Your task to perform on an android device: Check the weather Image 0: 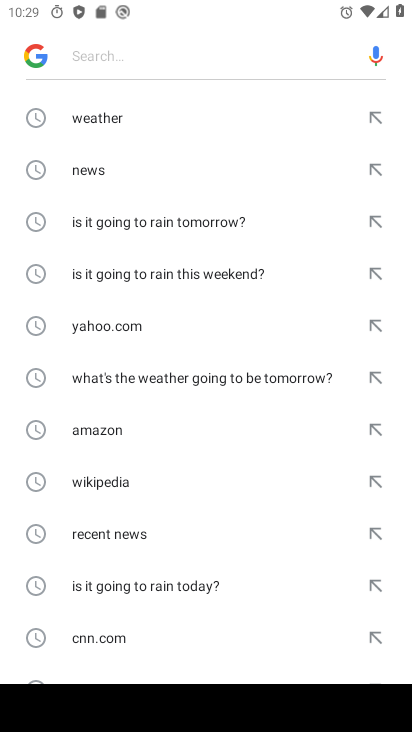
Step 0: click (150, 118)
Your task to perform on an android device: Check the weather Image 1: 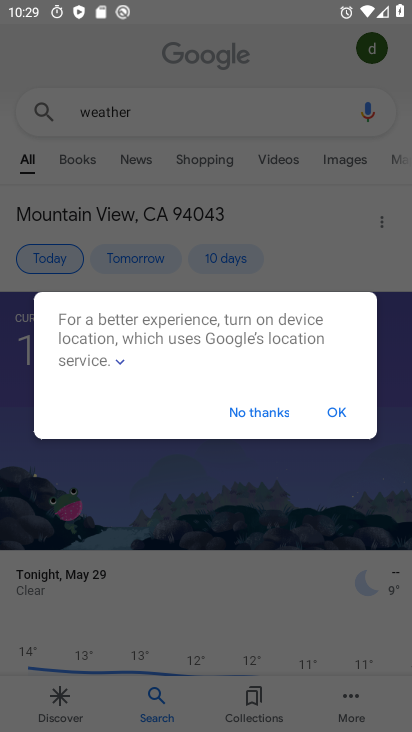
Step 1: click (248, 410)
Your task to perform on an android device: Check the weather Image 2: 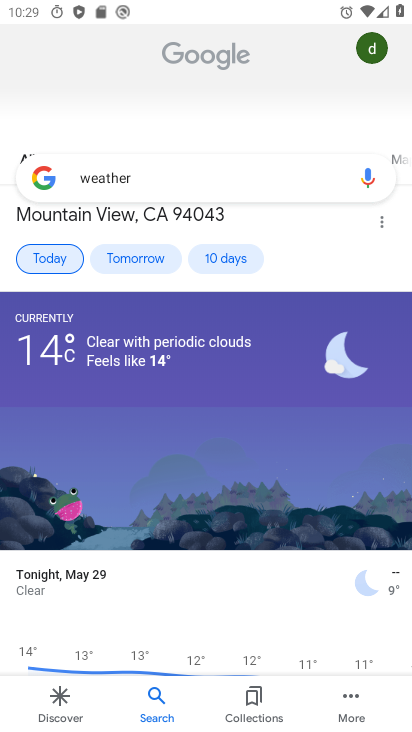
Step 2: task complete